Your task to perform on an android device: Show me recent news Image 0: 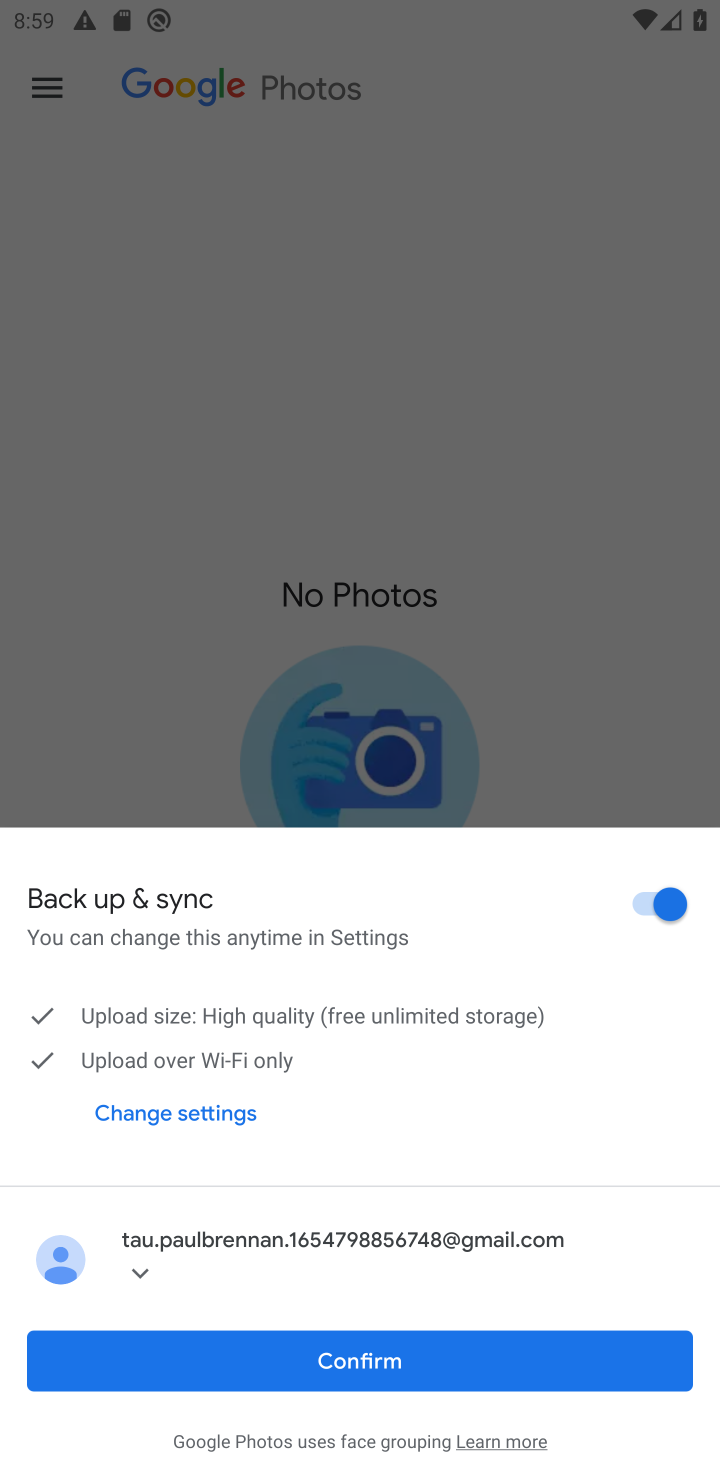
Step 0: task complete